Your task to perform on an android device: What's the weather going to be this weekend? Image 0: 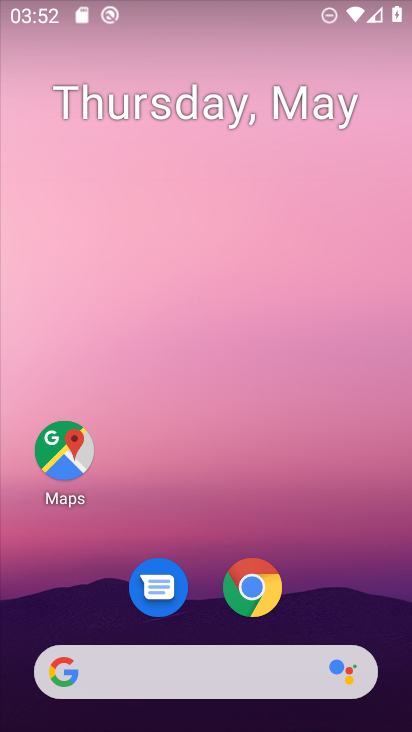
Step 0: click (260, 680)
Your task to perform on an android device: What's the weather going to be this weekend? Image 1: 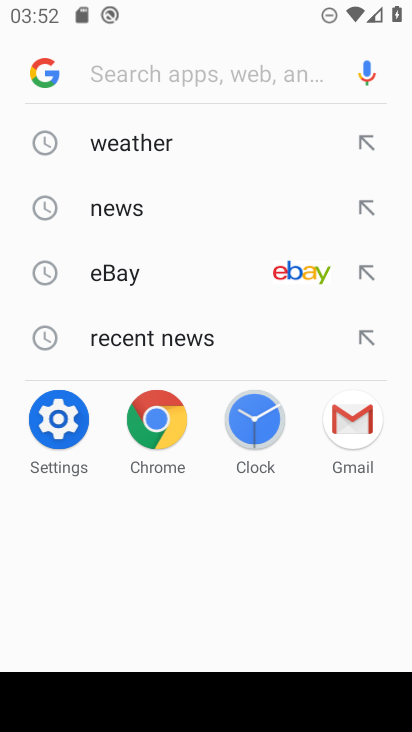
Step 1: click (212, 155)
Your task to perform on an android device: What's the weather going to be this weekend? Image 2: 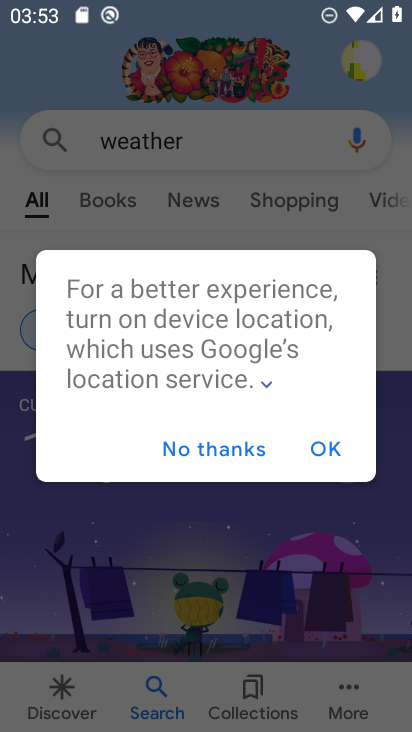
Step 2: click (248, 454)
Your task to perform on an android device: What's the weather going to be this weekend? Image 3: 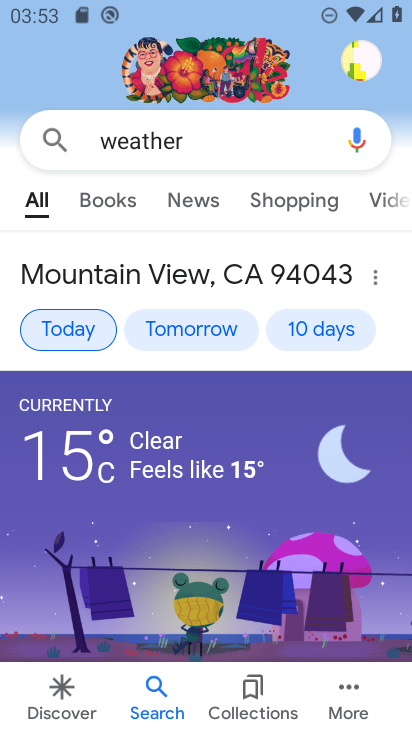
Step 3: click (328, 332)
Your task to perform on an android device: What's the weather going to be this weekend? Image 4: 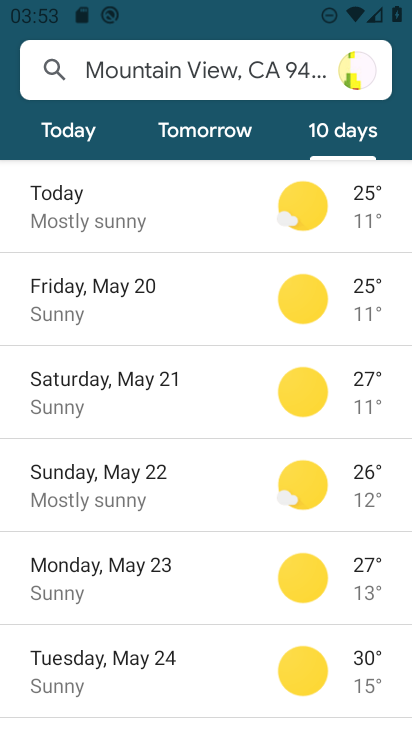
Step 4: drag from (246, 612) to (232, 429)
Your task to perform on an android device: What's the weather going to be this weekend? Image 5: 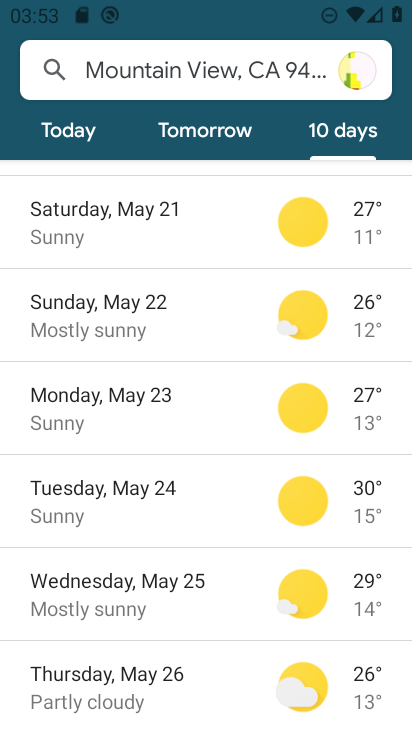
Step 5: drag from (220, 601) to (222, 529)
Your task to perform on an android device: What's the weather going to be this weekend? Image 6: 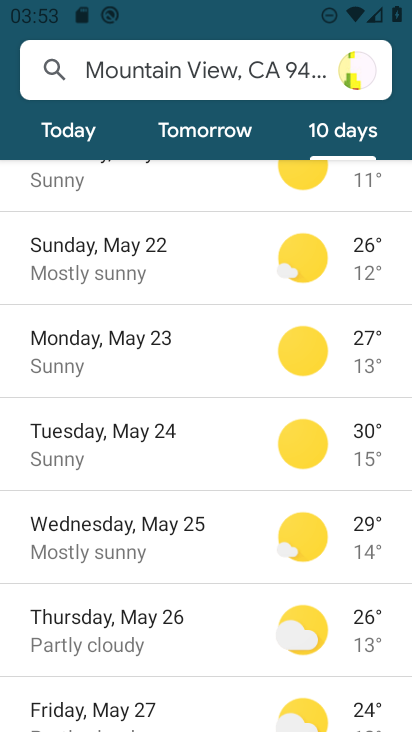
Step 6: drag from (215, 293) to (222, 520)
Your task to perform on an android device: What's the weather going to be this weekend? Image 7: 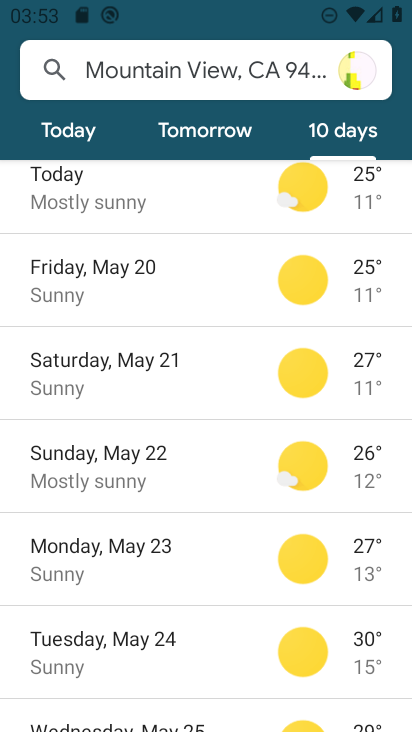
Step 7: click (208, 387)
Your task to perform on an android device: What's the weather going to be this weekend? Image 8: 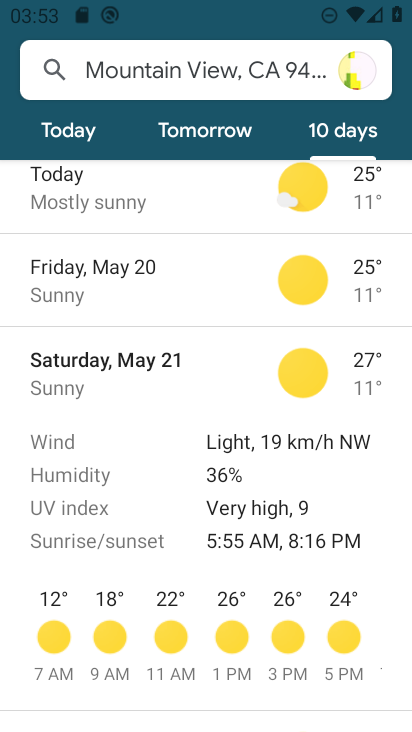
Step 8: task complete